Your task to perform on an android device: toggle sleep mode Image 0: 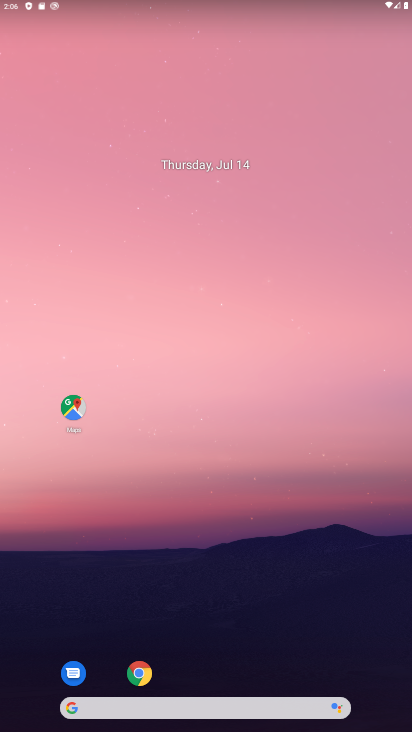
Step 0: drag from (281, 602) to (177, 101)
Your task to perform on an android device: toggle sleep mode Image 1: 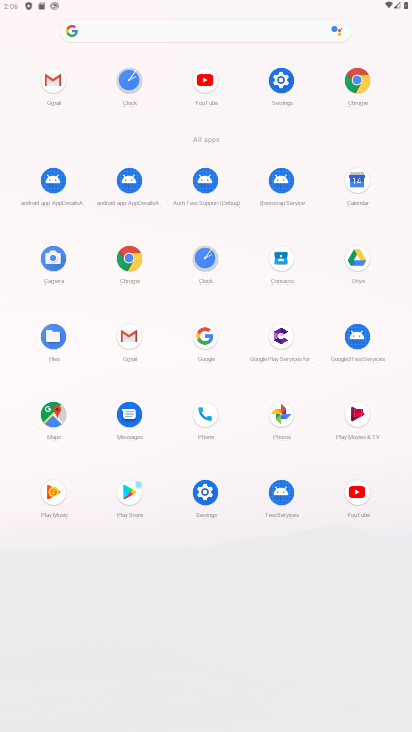
Step 1: click (283, 85)
Your task to perform on an android device: toggle sleep mode Image 2: 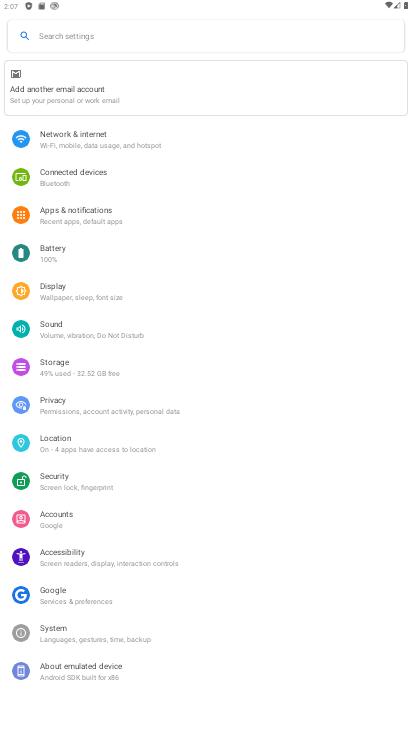
Step 2: click (57, 286)
Your task to perform on an android device: toggle sleep mode Image 3: 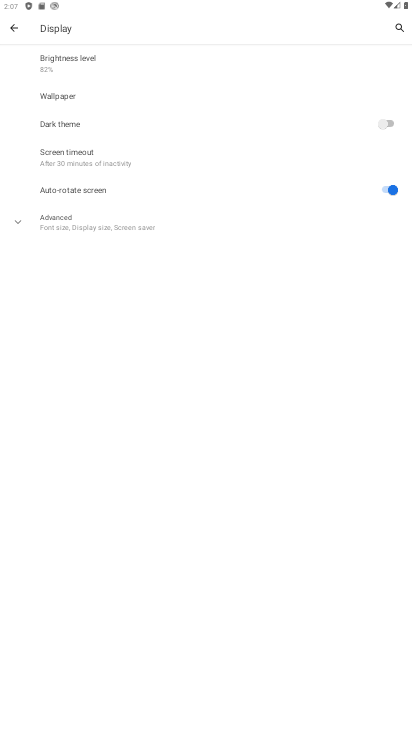
Step 3: task complete